Your task to perform on an android device: Show me popular games on the Play Store Image 0: 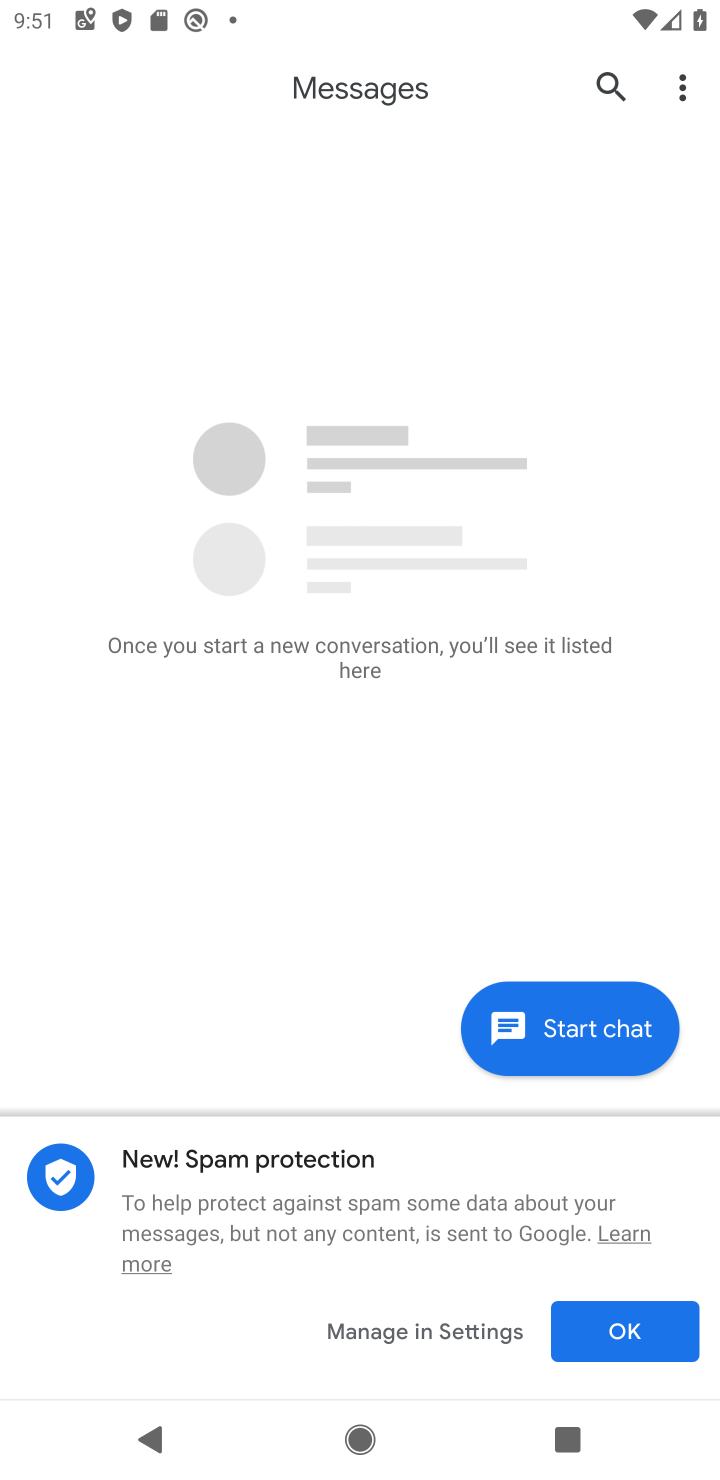
Step 0: press home button
Your task to perform on an android device: Show me popular games on the Play Store Image 1: 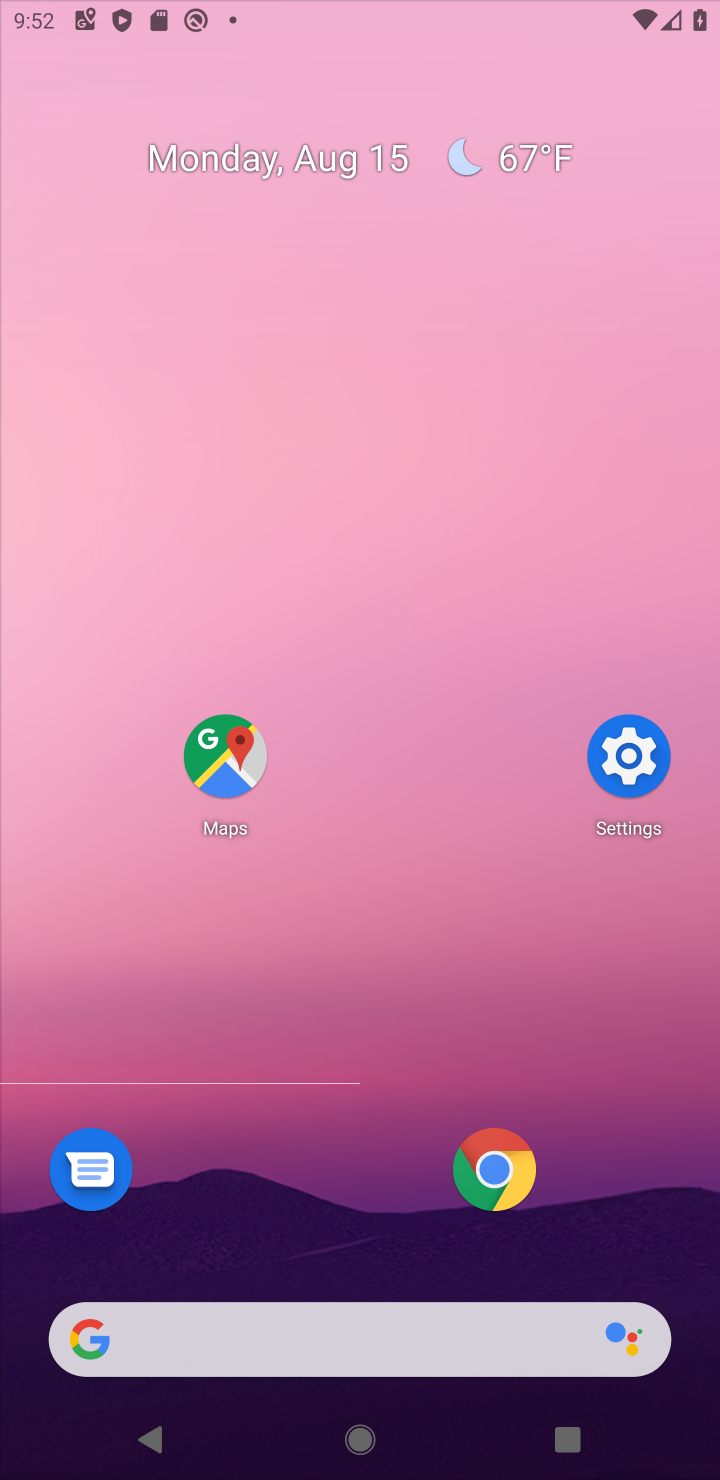
Step 1: press home button
Your task to perform on an android device: Show me popular games on the Play Store Image 2: 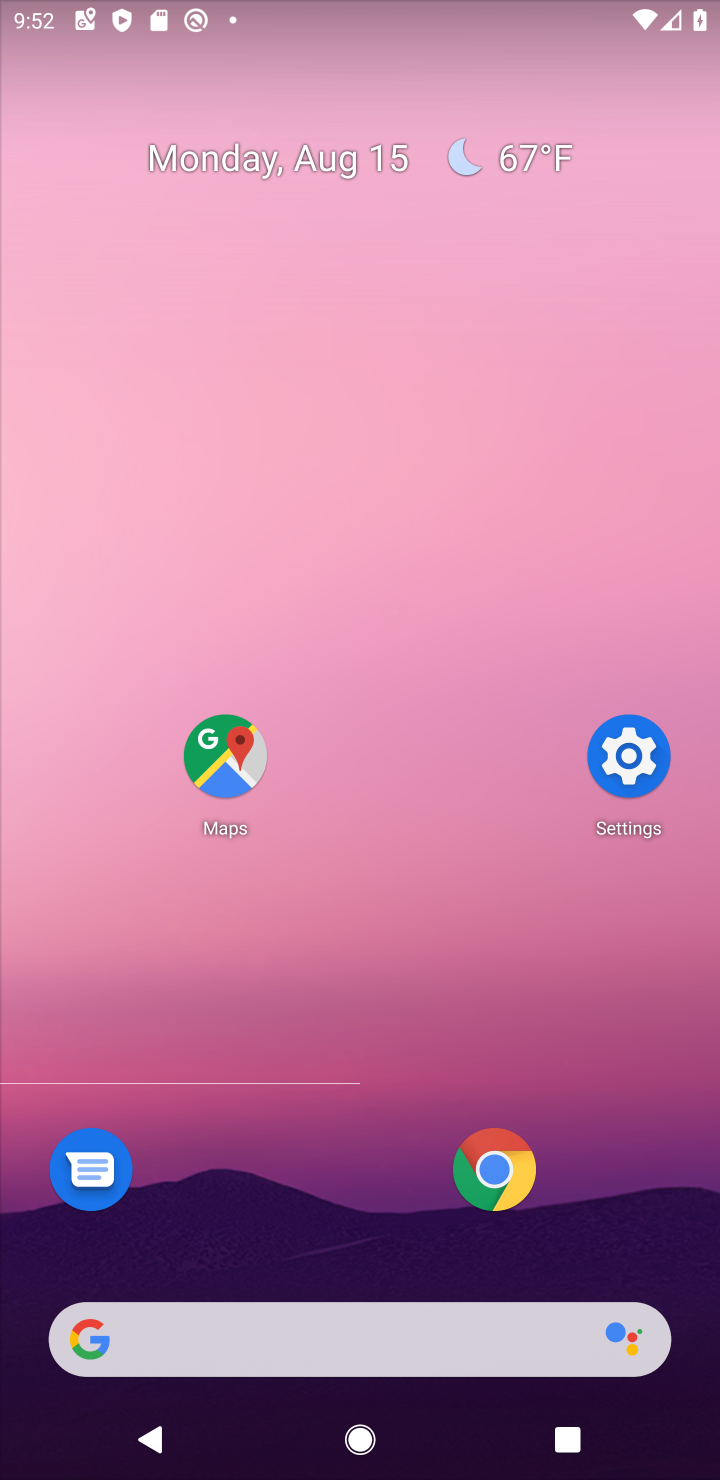
Step 2: drag from (416, 1238) to (645, 388)
Your task to perform on an android device: Show me popular games on the Play Store Image 3: 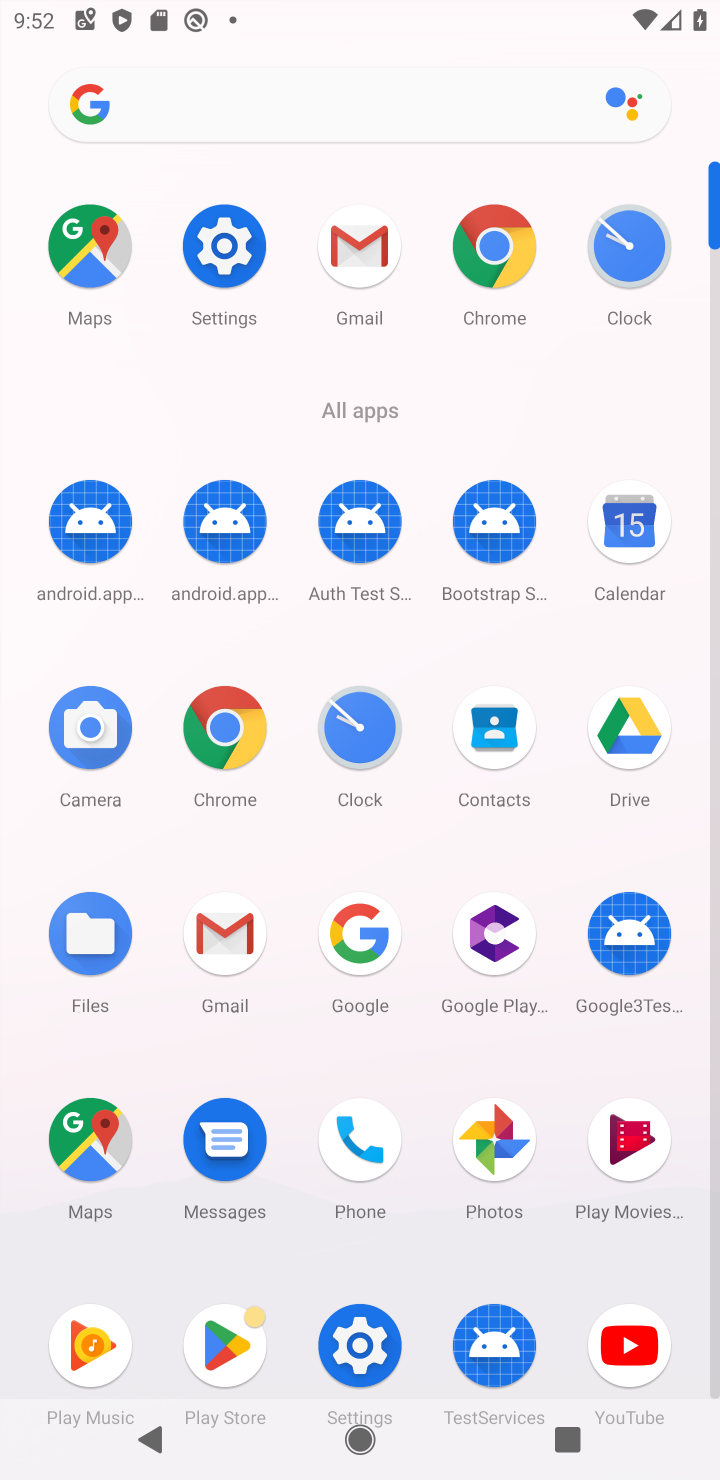
Step 3: click (227, 1325)
Your task to perform on an android device: Show me popular games on the Play Store Image 4: 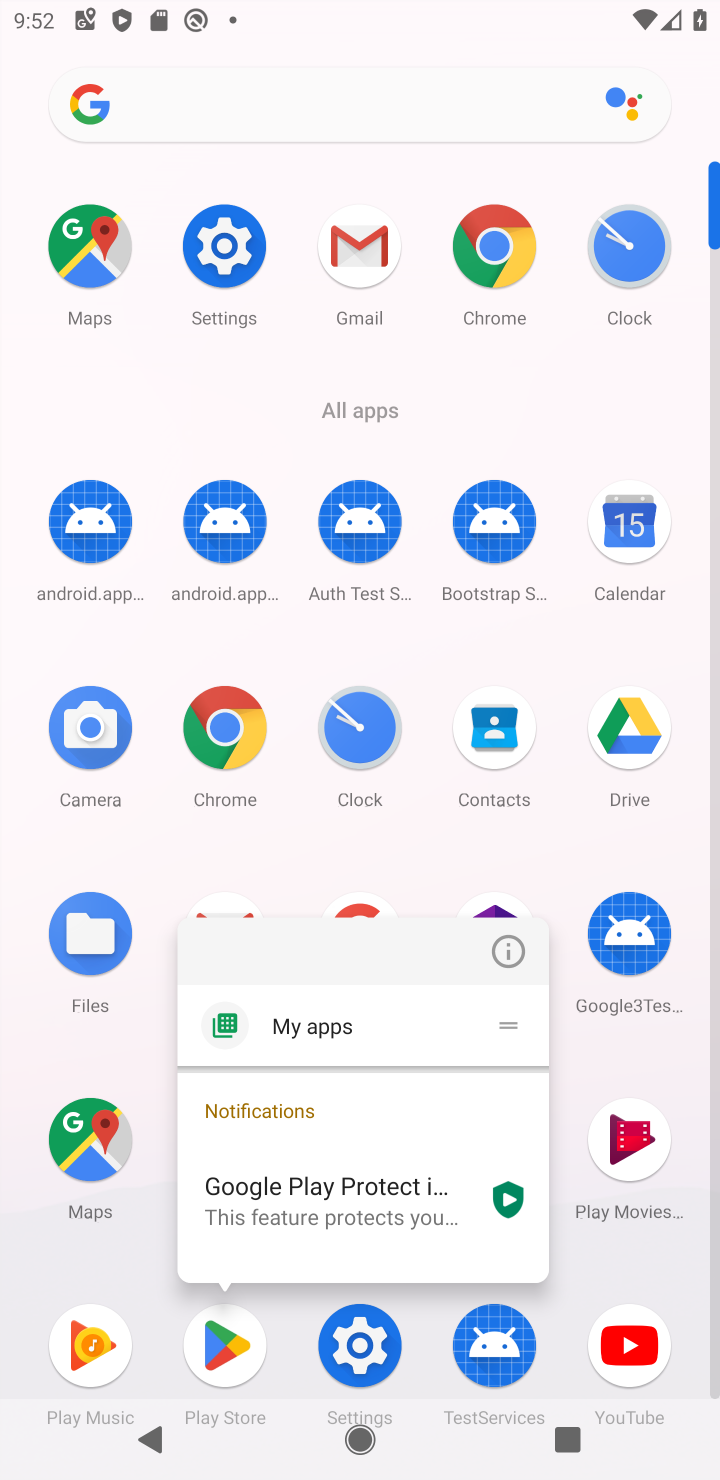
Step 4: click (227, 1325)
Your task to perform on an android device: Show me popular games on the Play Store Image 5: 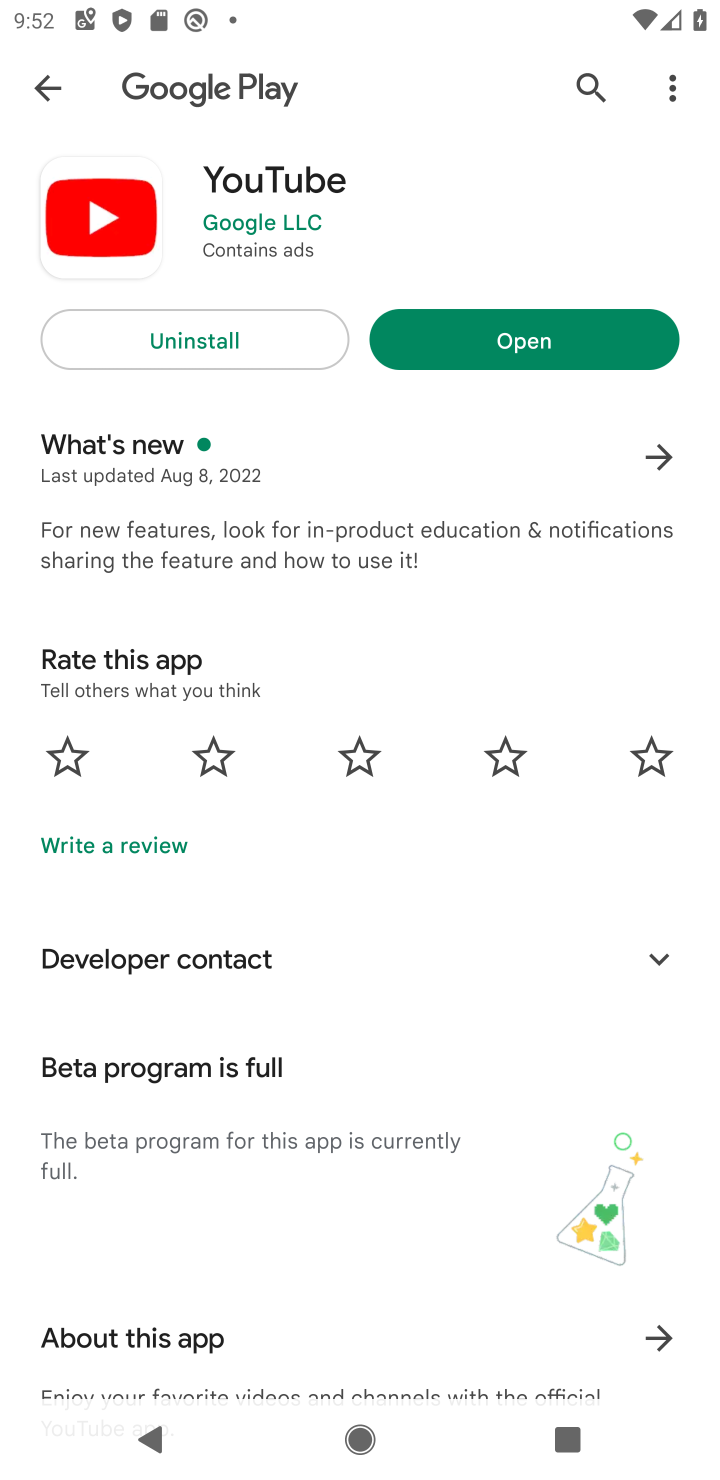
Step 5: click (51, 71)
Your task to perform on an android device: Show me popular games on the Play Store Image 6: 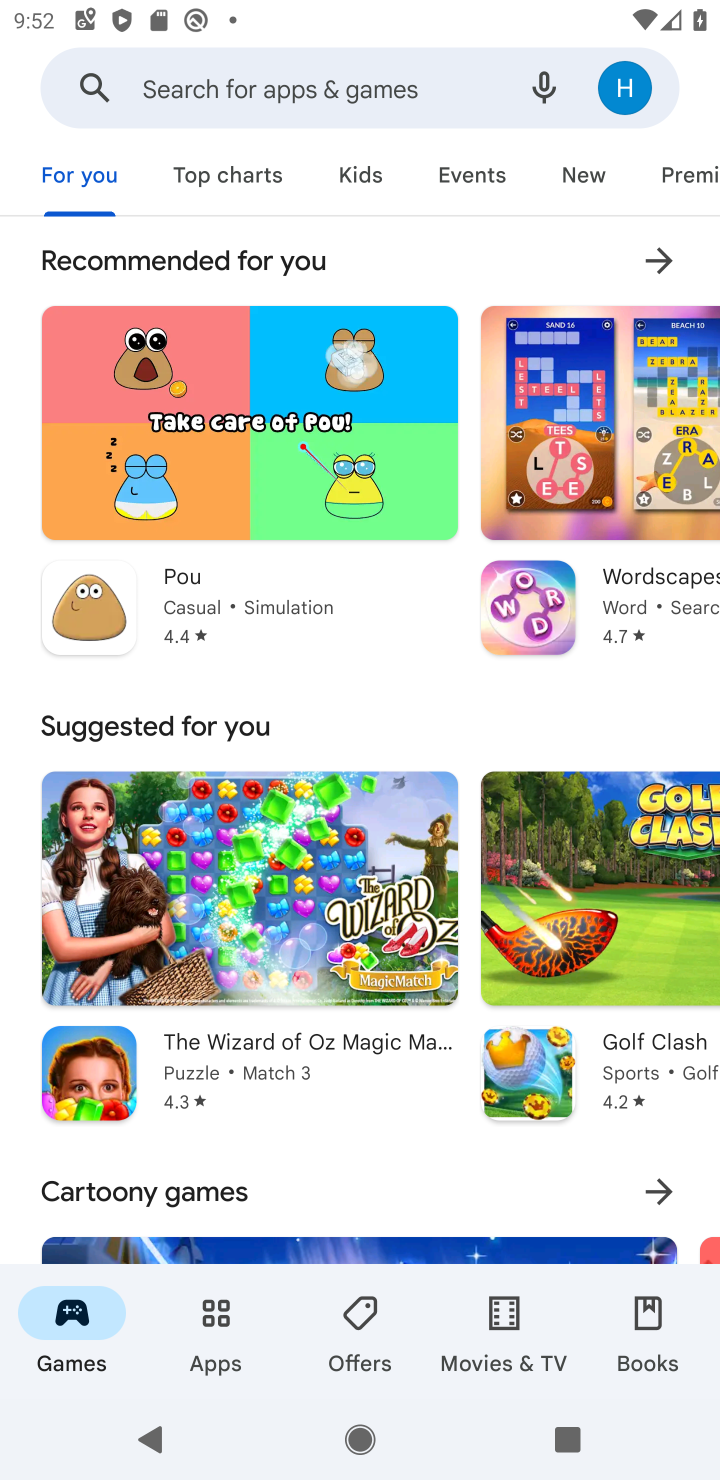
Step 6: task complete